Your task to perform on an android device: View the shopping cart on amazon. Add "macbook" to the cart on amazon Image 0: 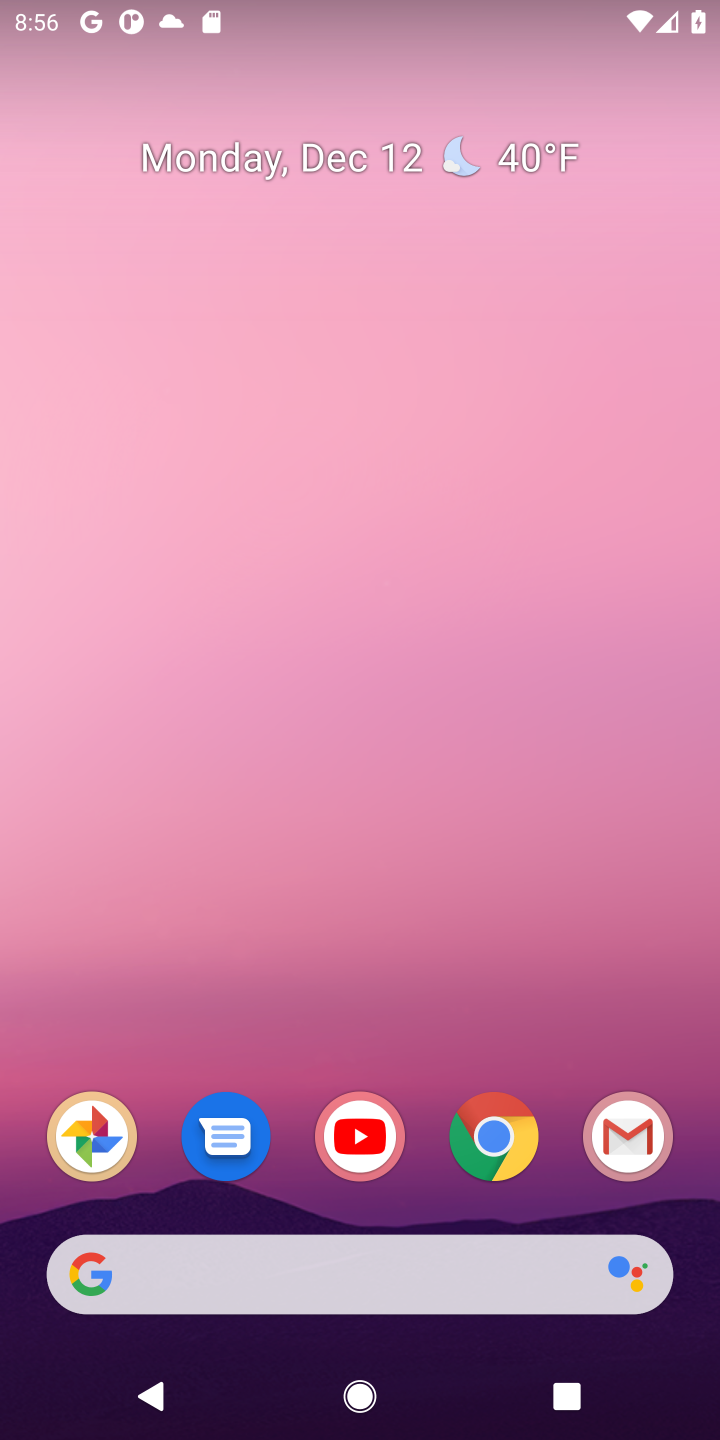
Step 0: click (511, 1137)
Your task to perform on an android device: View the shopping cart on amazon. Add "macbook" to the cart on amazon Image 1: 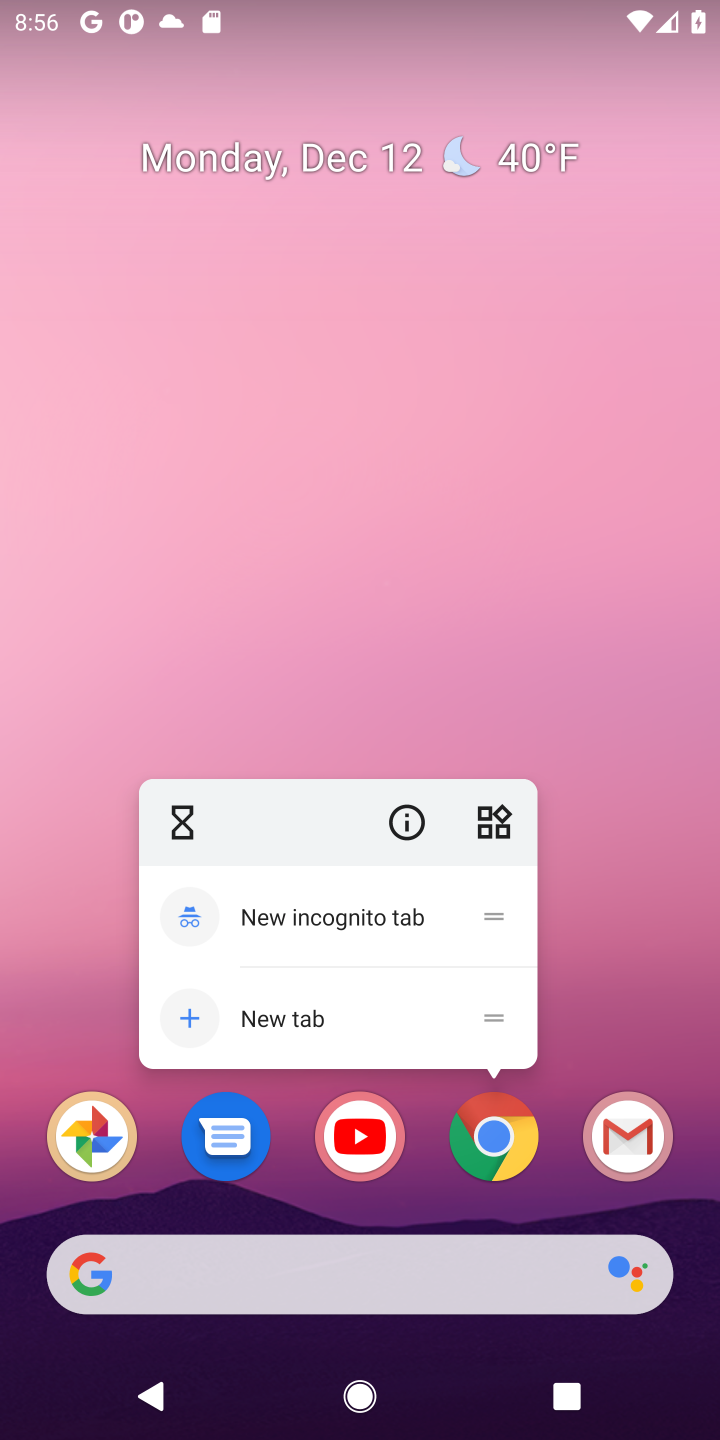
Step 1: click (511, 1137)
Your task to perform on an android device: View the shopping cart on amazon. Add "macbook" to the cart on amazon Image 2: 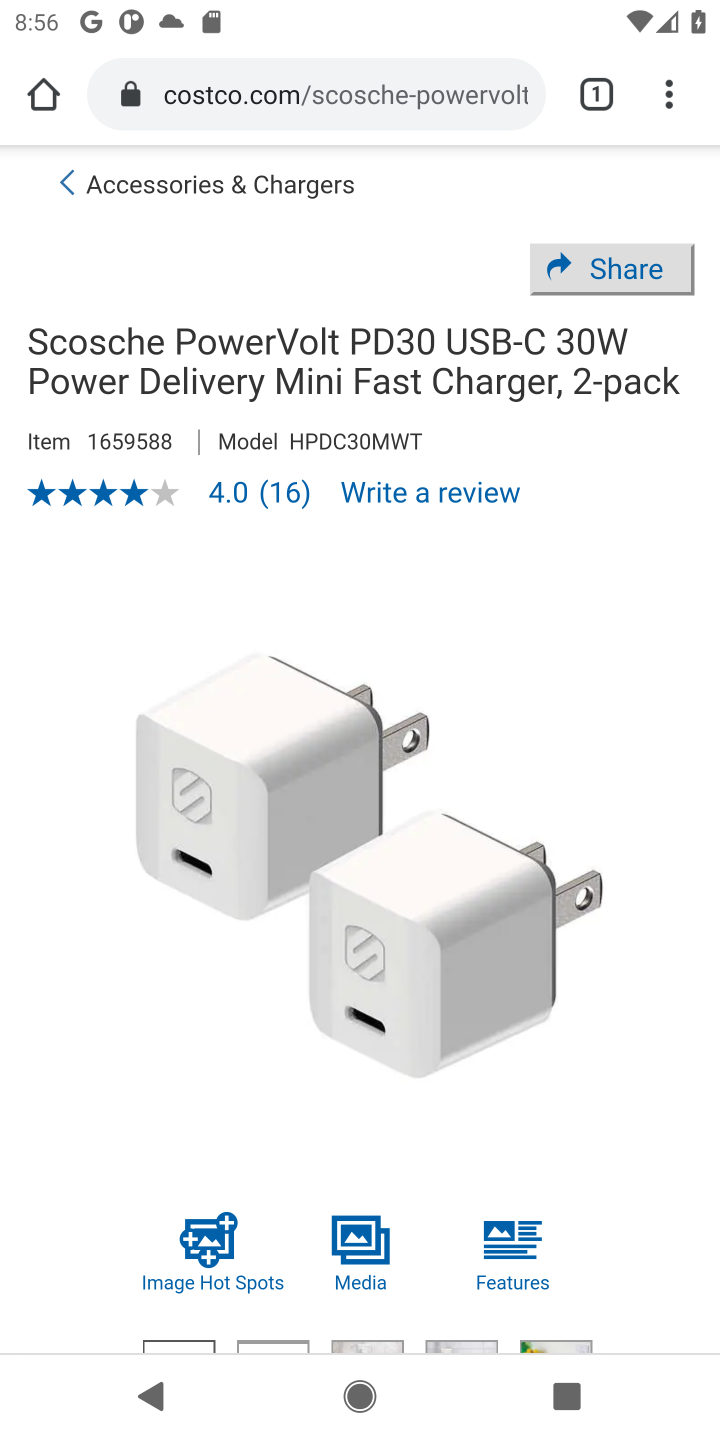
Step 2: click (291, 94)
Your task to perform on an android device: View the shopping cart on amazon. Add "macbook" to the cart on amazon Image 3: 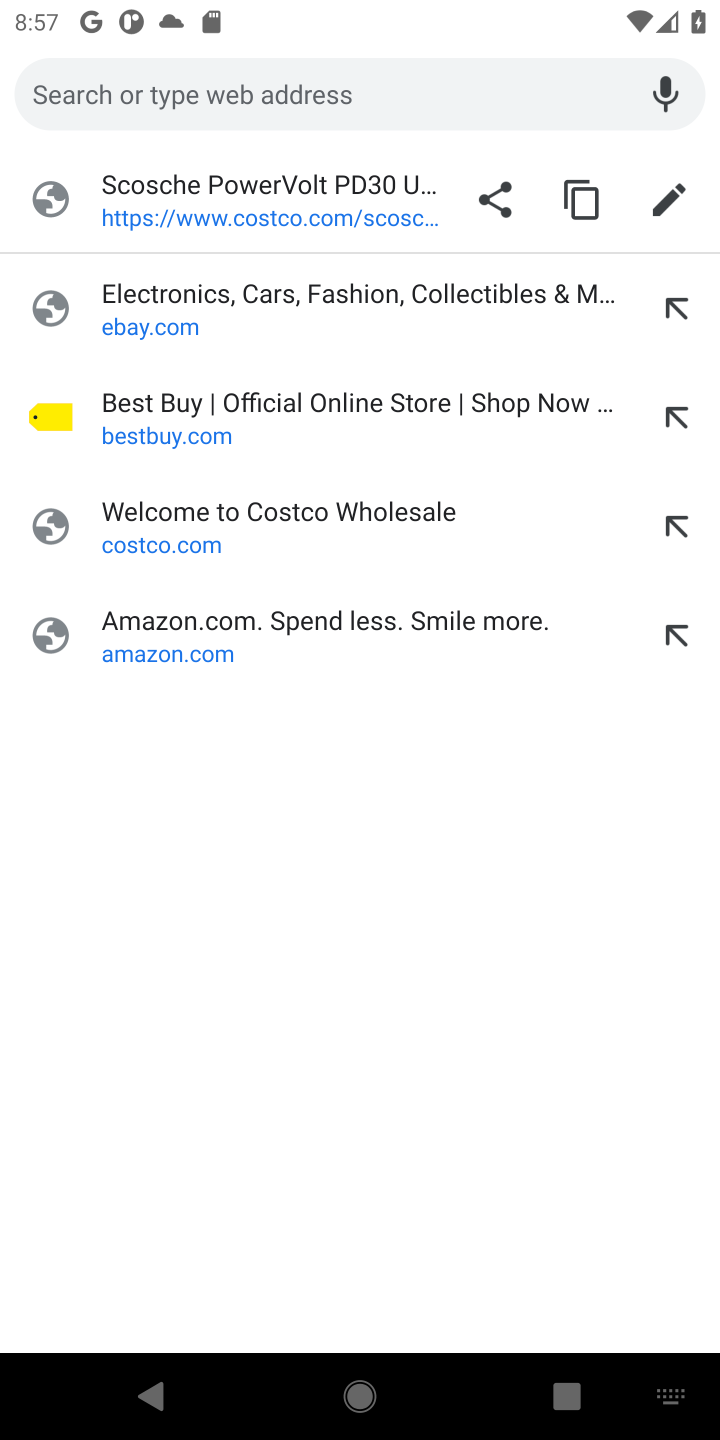
Step 3: click (152, 659)
Your task to perform on an android device: View the shopping cart on amazon. Add "macbook" to the cart on amazon Image 4: 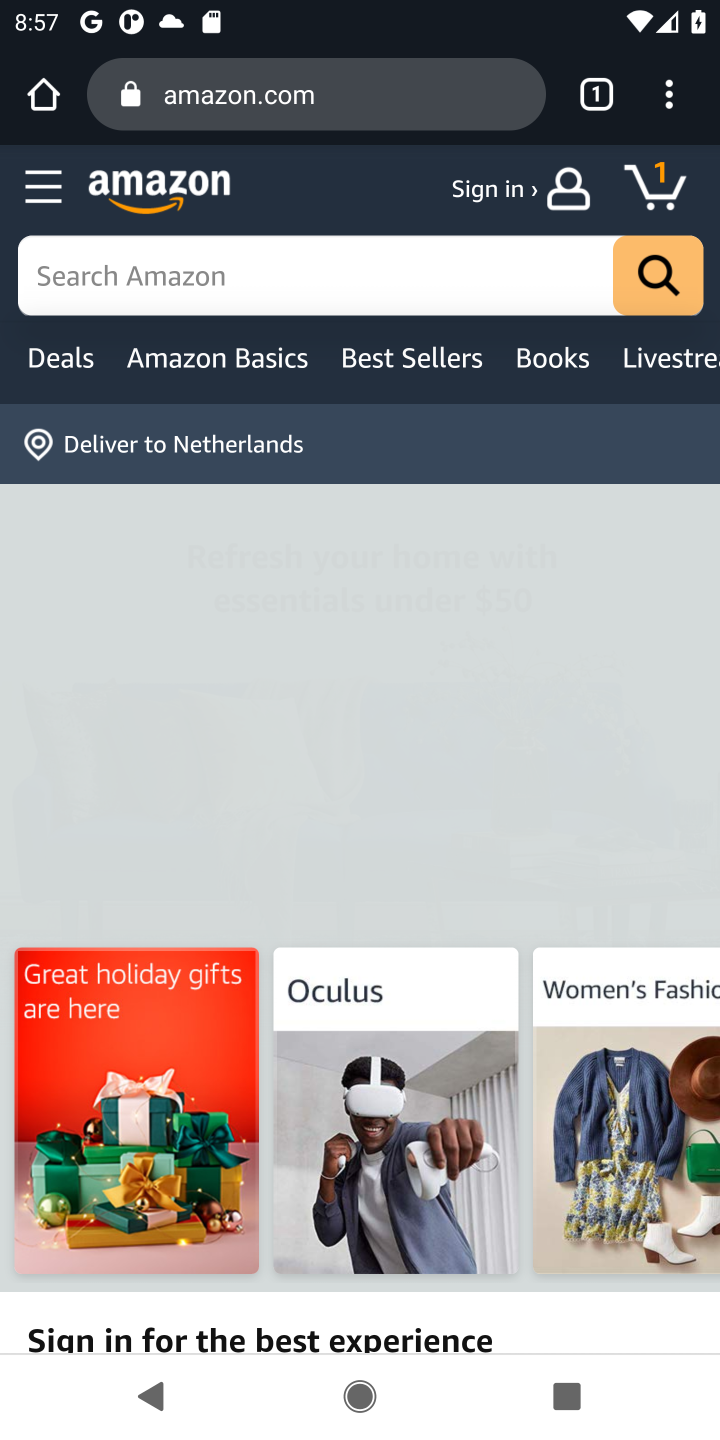
Step 4: click (660, 195)
Your task to perform on an android device: View the shopping cart on amazon. Add "macbook" to the cart on amazon Image 5: 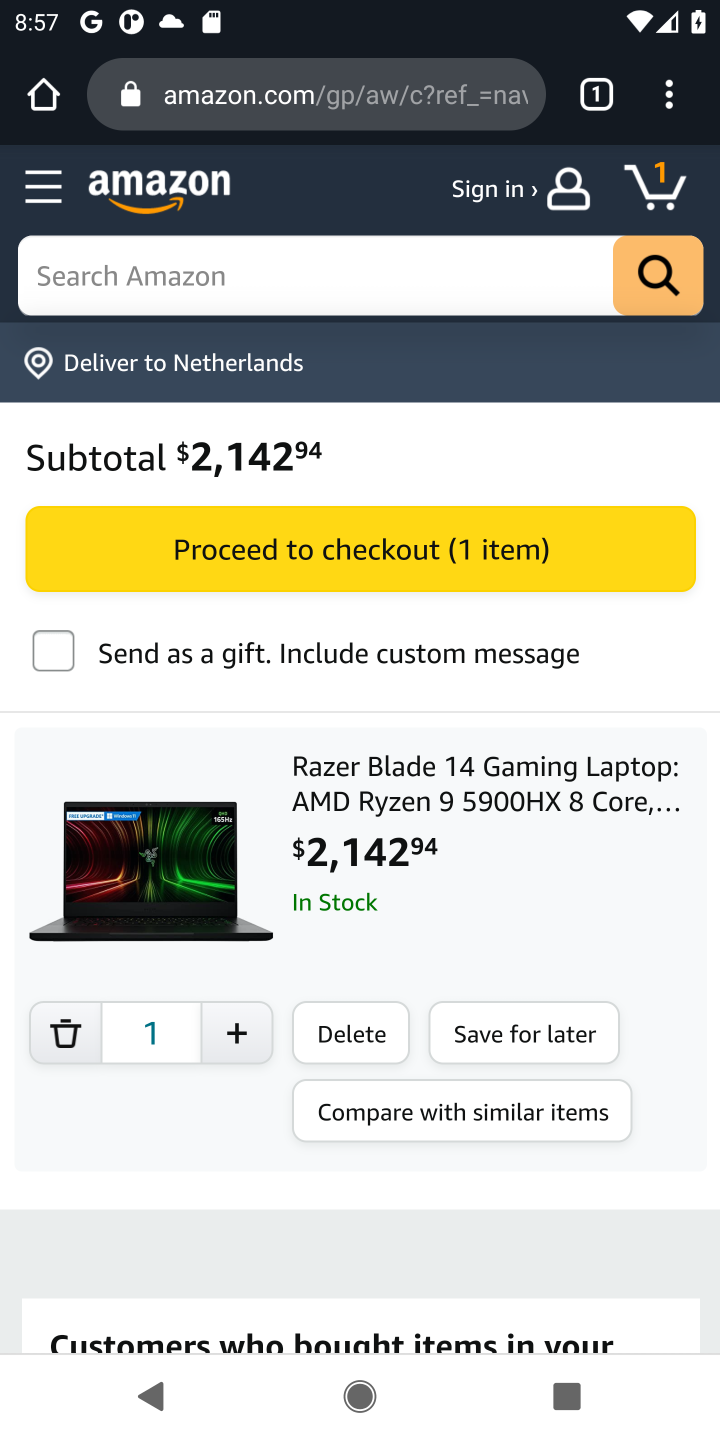
Step 5: click (324, 279)
Your task to perform on an android device: View the shopping cart on amazon. Add "macbook" to the cart on amazon Image 6: 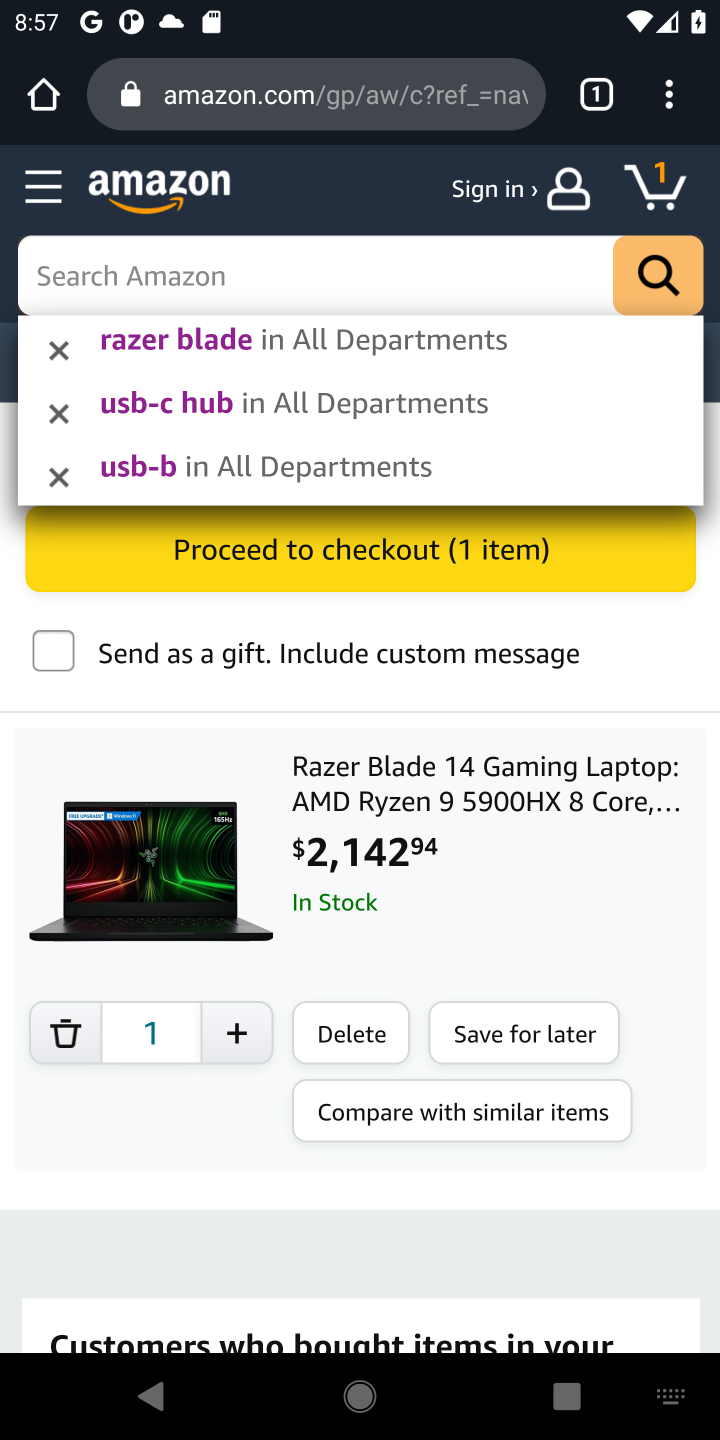
Step 6: type "macbook"
Your task to perform on an android device: View the shopping cart on amazon. Add "macbook" to the cart on amazon Image 7: 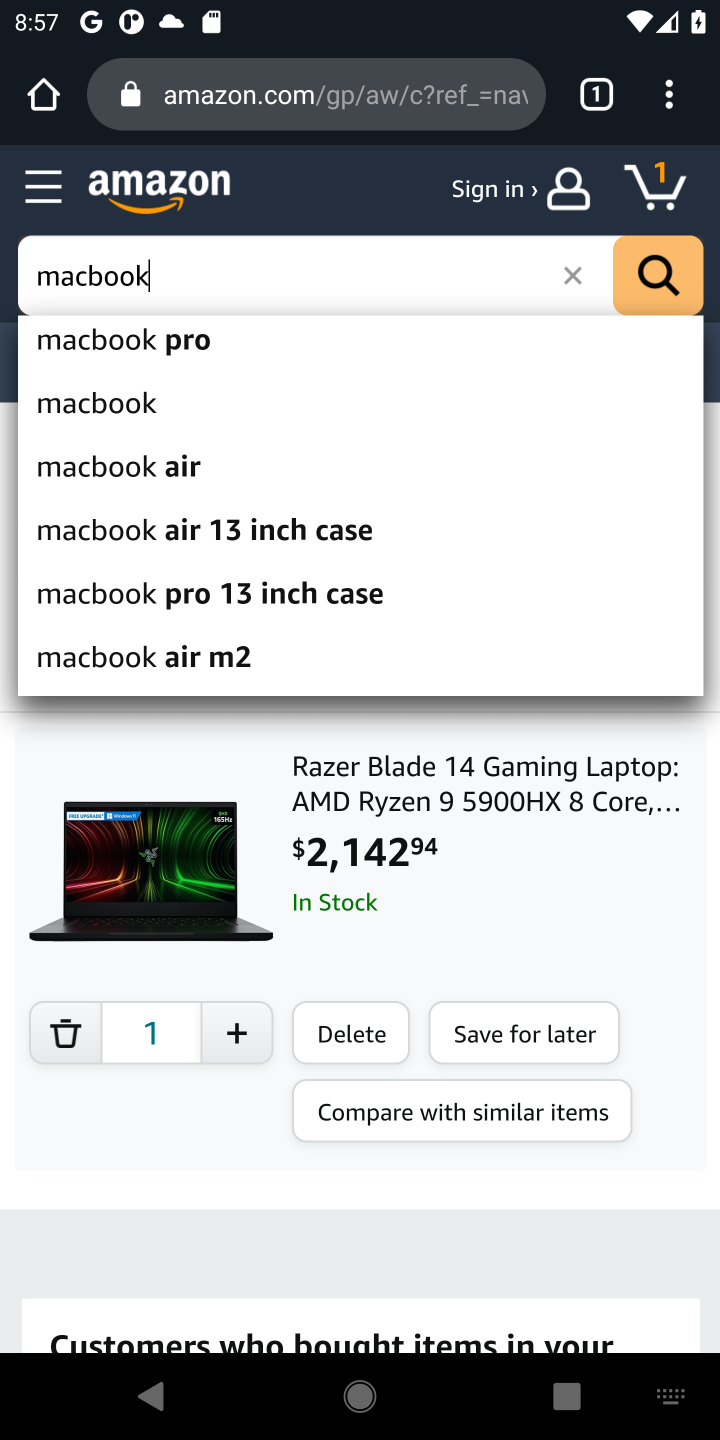
Step 7: click (127, 400)
Your task to perform on an android device: View the shopping cart on amazon. Add "macbook" to the cart on amazon Image 8: 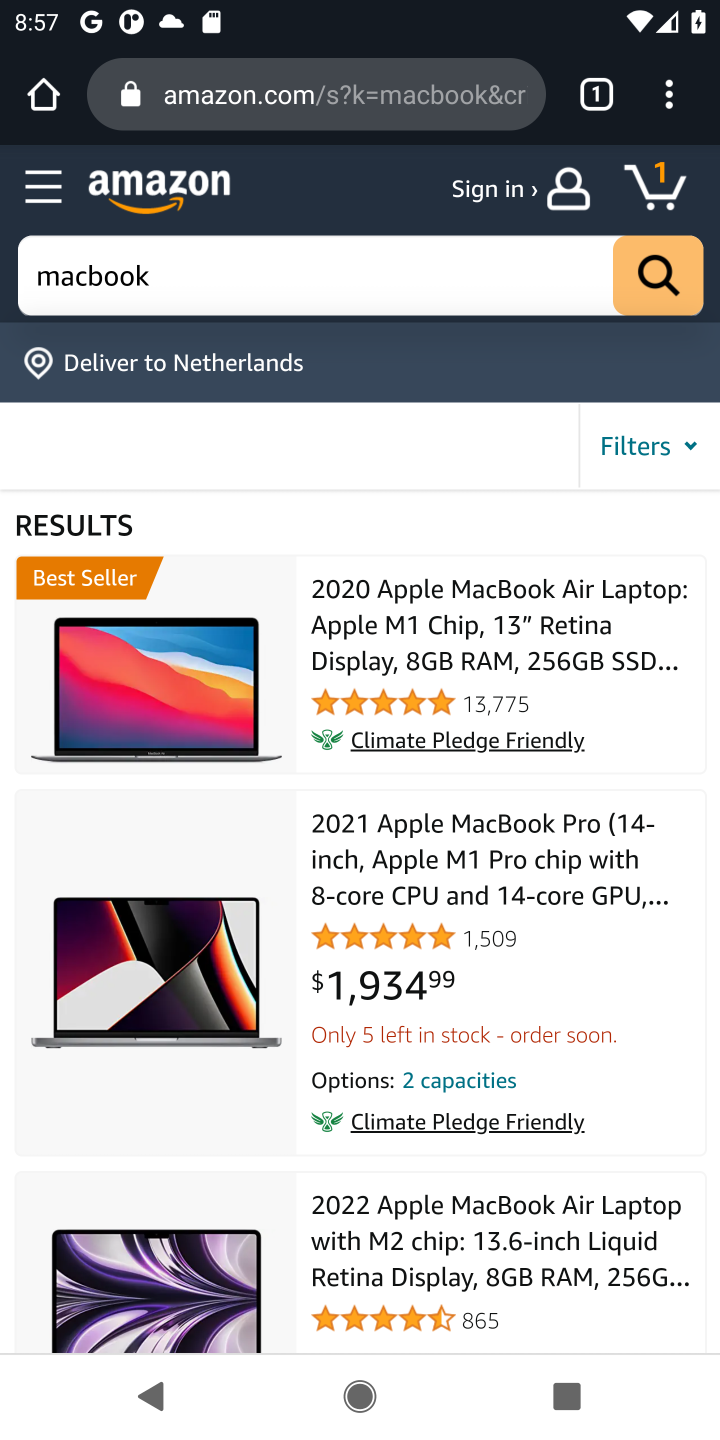
Step 8: drag from (406, 1119) to (434, 633)
Your task to perform on an android device: View the shopping cart on amazon. Add "macbook" to the cart on amazon Image 9: 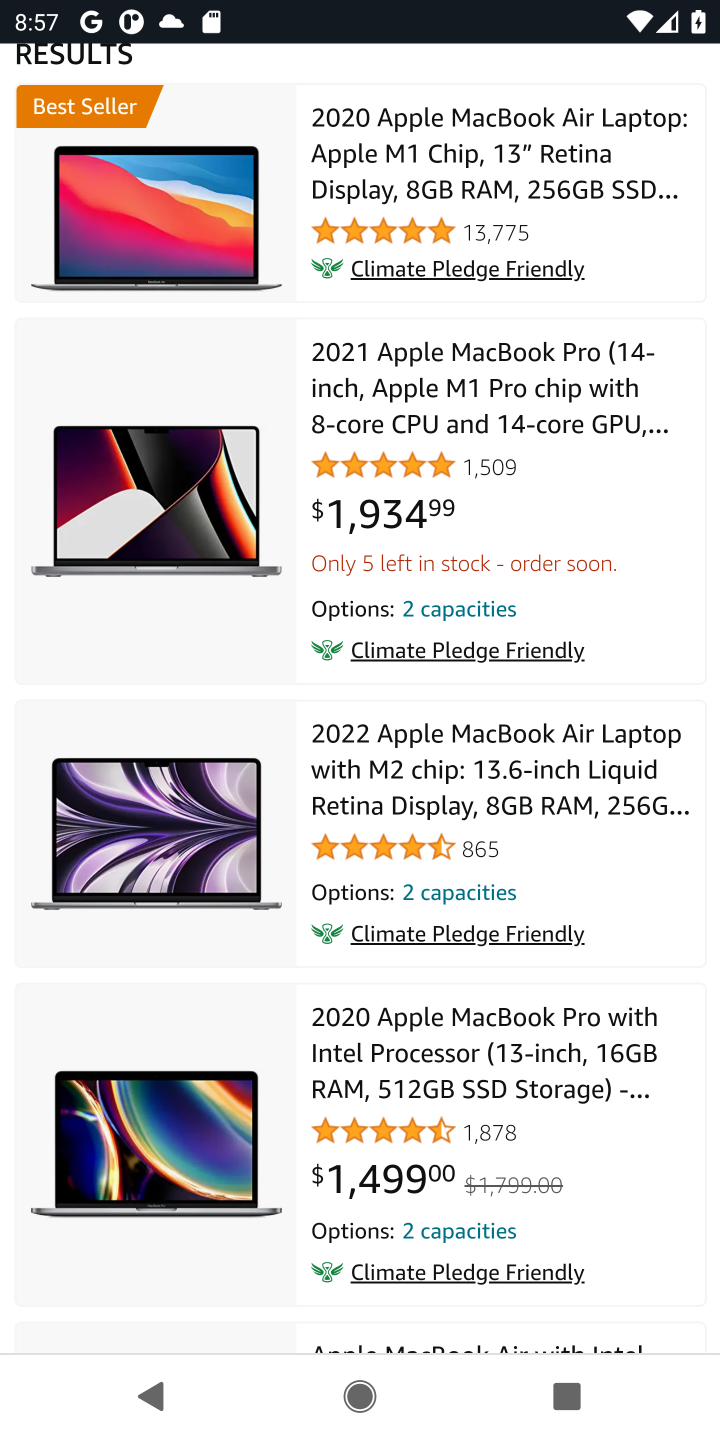
Step 9: drag from (402, 1035) to (400, 683)
Your task to perform on an android device: View the shopping cart on amazon. Add "macbook" to the cart on amazon Image 10: 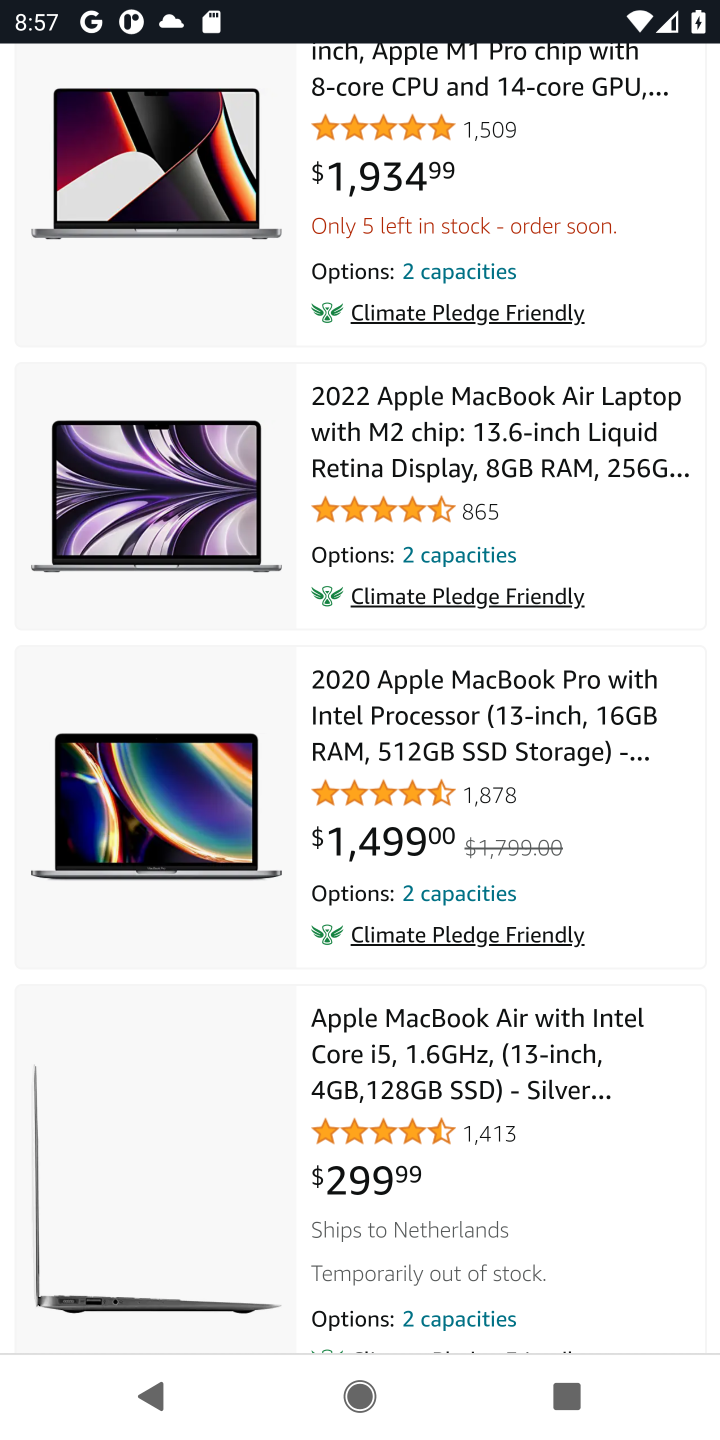
Step 10: drag from (333, 1083) to (361, 679)
Your task to perform on an android device: View the shopping cart on amazon. Add "macbook" to the cart on amazon Image 11: 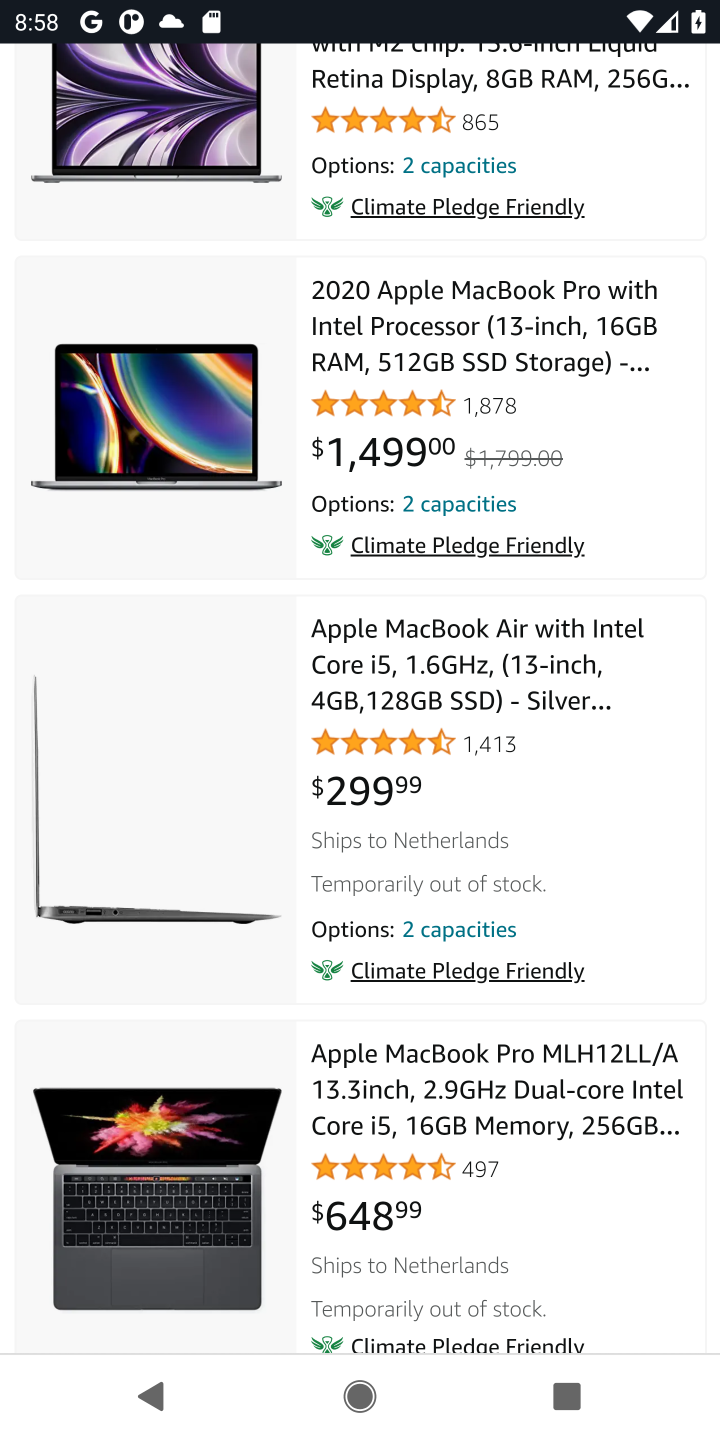
Step 11: click (424, 702)
Your task to perform on an android device: View the shopping cart on amazon. Add "macbook" to the cart on amazon Image 12: 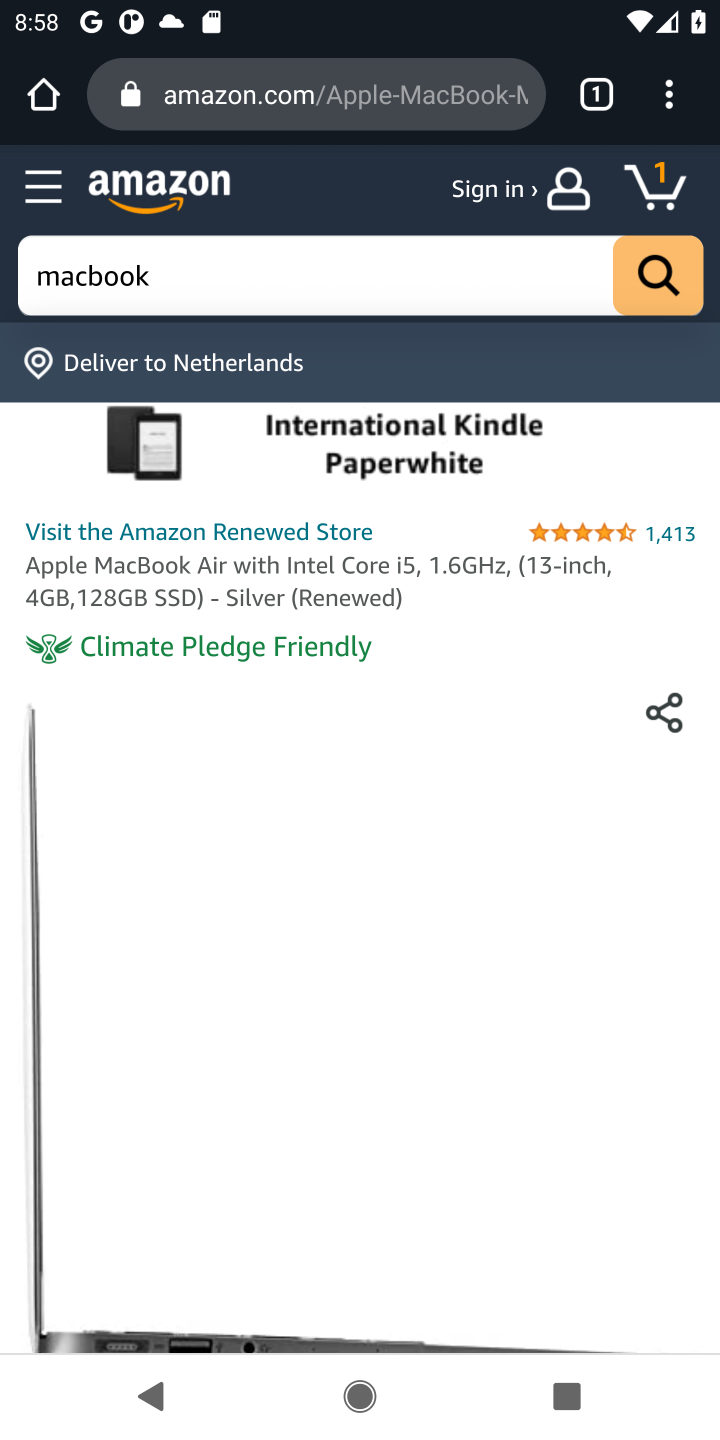
Step 12: drag from (303, 1047) to (367, 475)
Your task to perform on an android device: View the shopping cart on amazon. Add "macbook" to the cart on amazon Image 13: 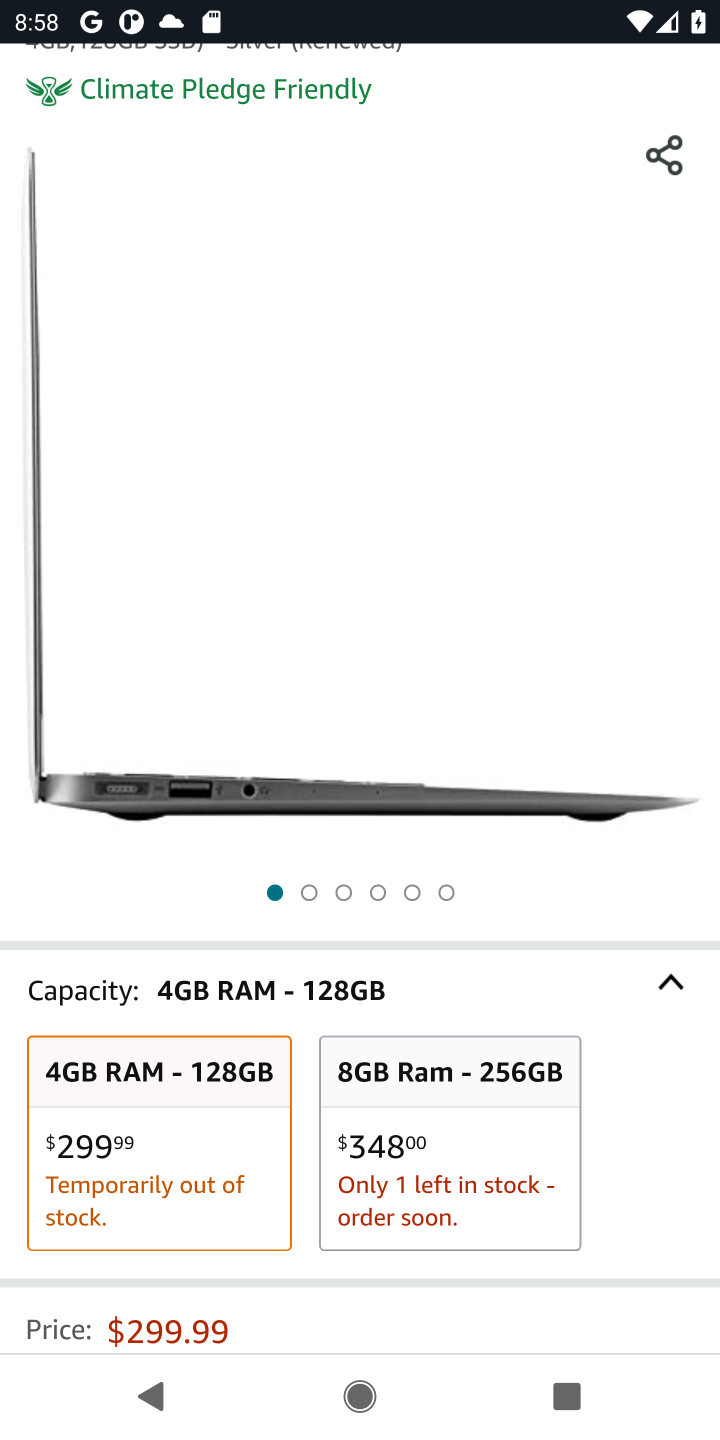
Step 13: drag from (291, 953) to (314, 318)
Your task to perform on an android device: View the shopping cart on amazon. Add "macbook" to the cart on amazon Image 14: 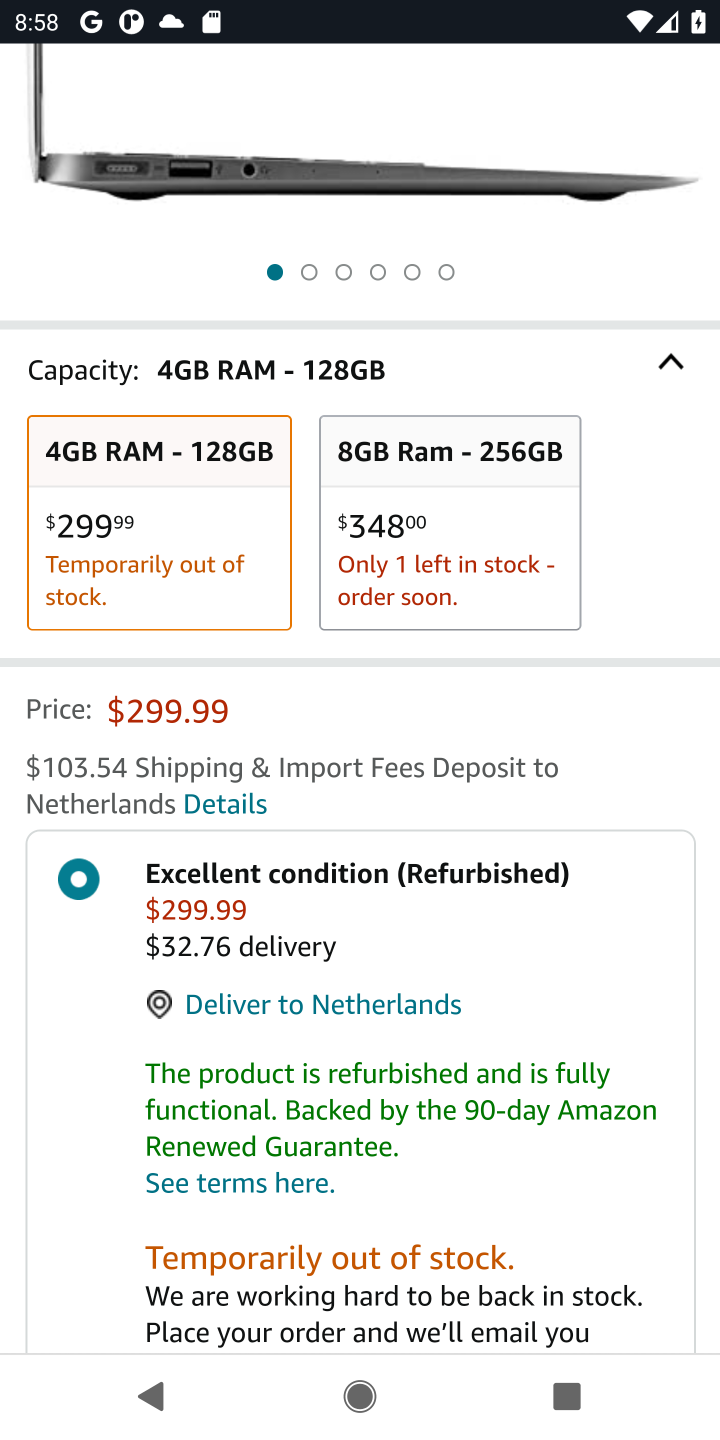
Step 14: drag from (318, 945) to (344, 463)
Your task to perform on an android device: View the shopping cart on amazon. Add "macbook" to the cart on amazon Image 15: 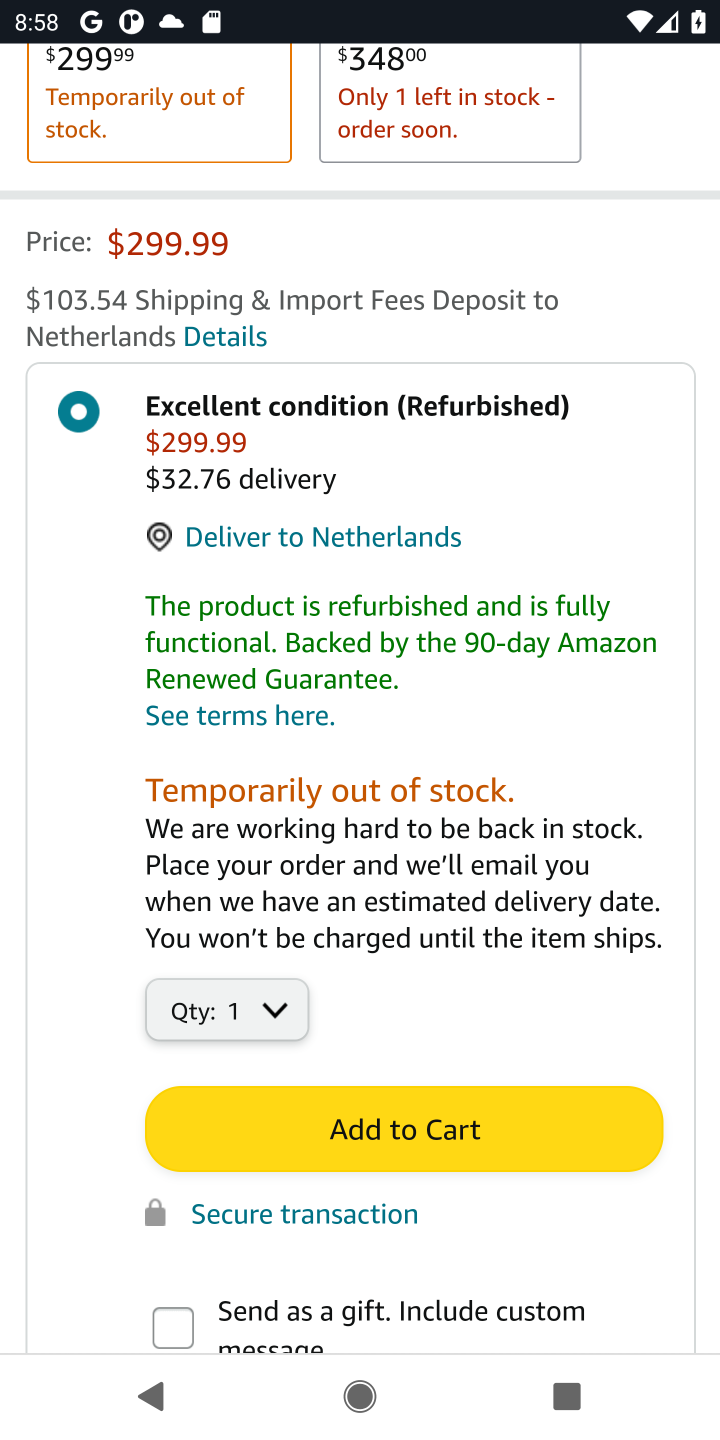
Step 15: click (332, 1144)
Your task to perform on an android device: View the shopping cart on amazon. Add "macbook" to the cart on amazon Image 16: 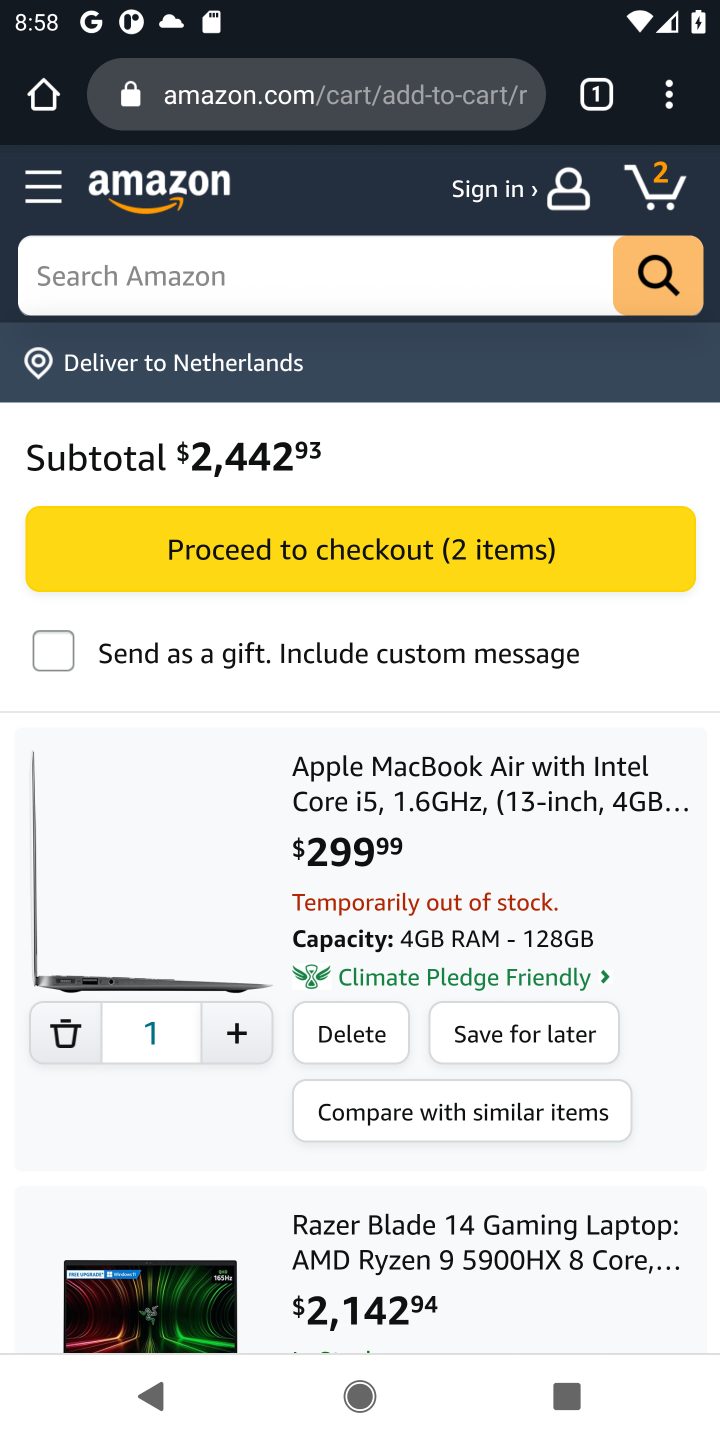
Step 16: task complete